Your task to perform on an android device: Go to internet settings Image 0: 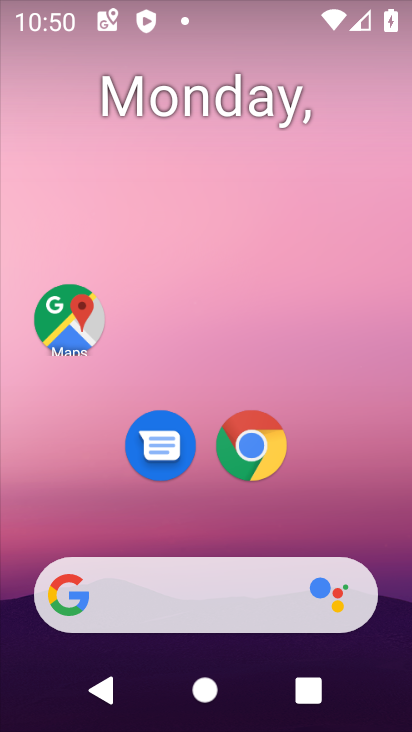
Step 0: drag from (213, 554) to (295, 99)
Your task to perform on an android device: Go to internet settings Image 1: 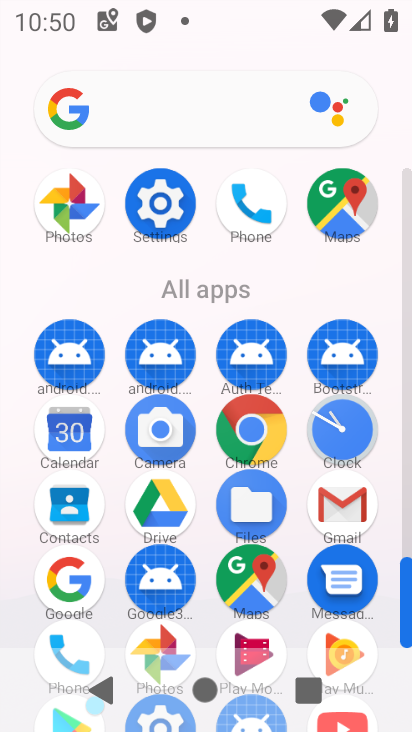
Step 1: click (173, 188)
Your task to perform on an android device: Go to internet settings Image 2: 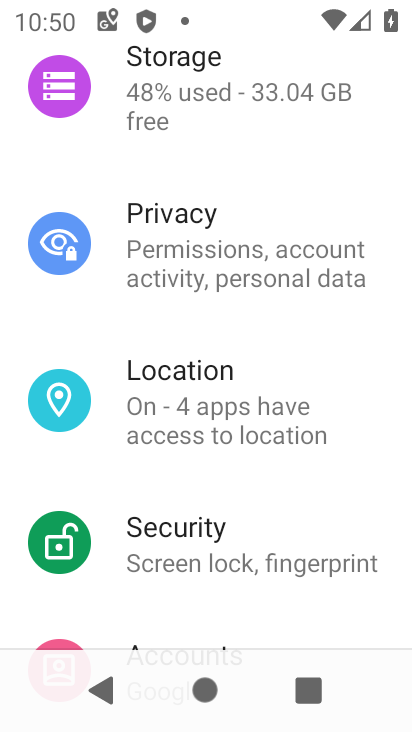
Step 2: drag from (271, 219) to (234, 627)
Your task to perform on an android device: Go to internet settings Image 3: 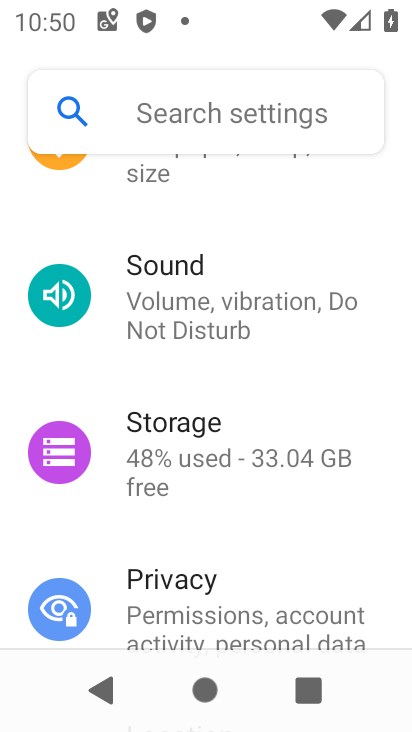
Step 3: drag from (284, 200) to (244, 640)
Your task to perform on an android device: Go to internet settings Image 4: 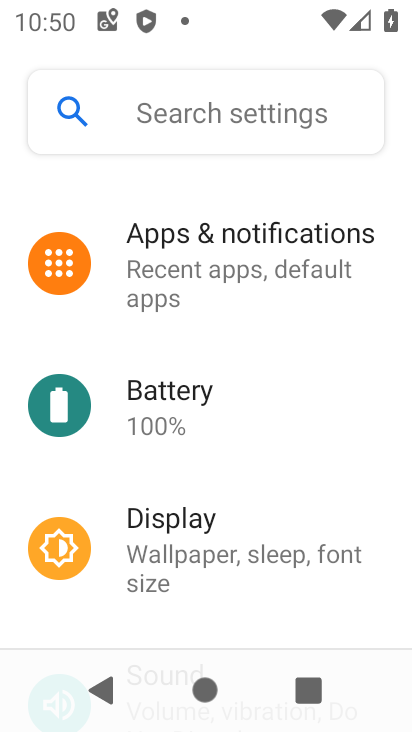
Step 4: drag from (304, 233) to (161, 696)
Your task to perform on an android device: Go to internet settings Image 5: 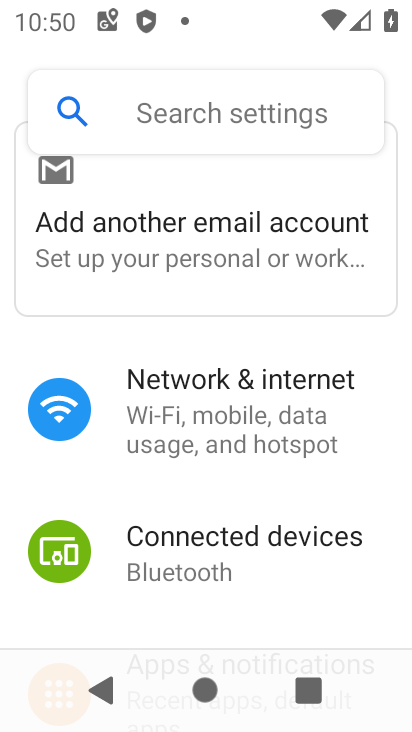
Step 5: click (214, 416)
Your task to perform on an android device: Go to internet settings Image 6: 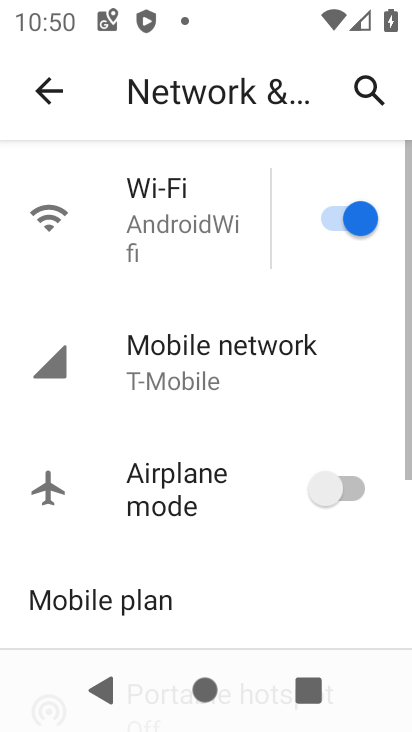
Step 6: task complete